Your task to perform on an android device: turn off airplane mode Image 0: 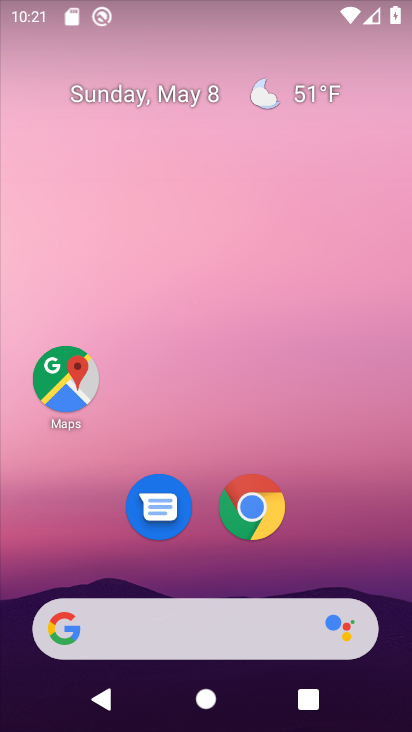
Step 0: drag from (251, 3) to (242, 613)
Your task to perform on an android device: turn off airplane mode Image 1: 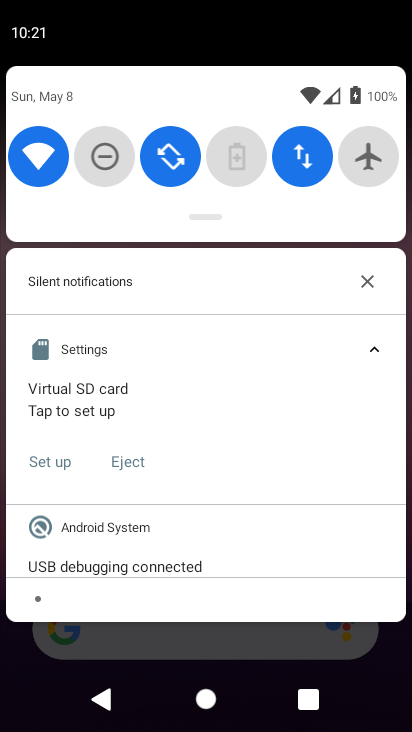
Step 1: task complete